Your task to perform on an android device: turn off location history Image 0: 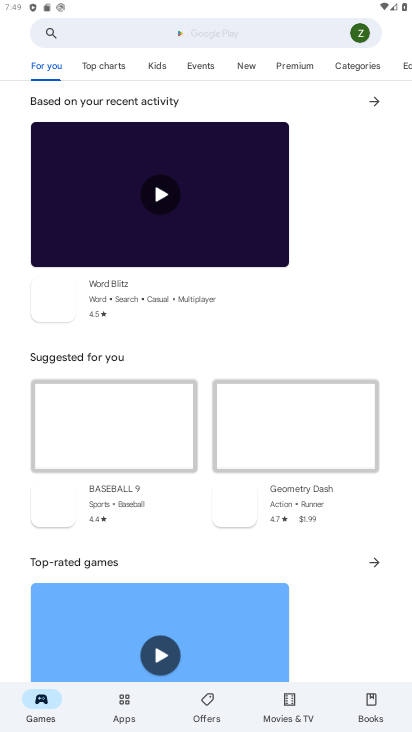
Step 0: press home button
Your task to perform on an android device: turn off location history Image 1: 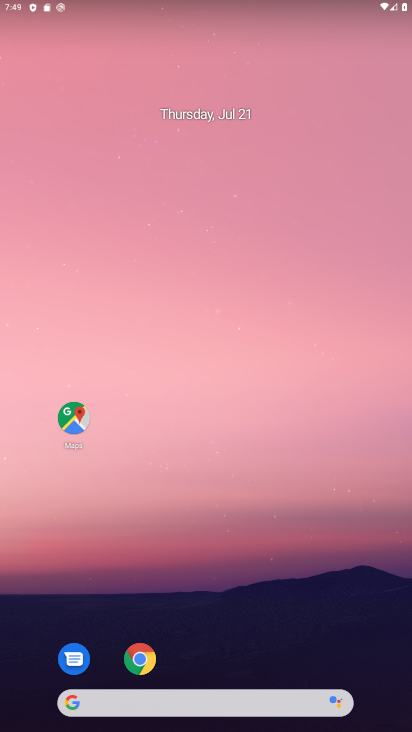
Step 1: click (64, 412)
Your task to perform on an android device: turn off location history Image 2: 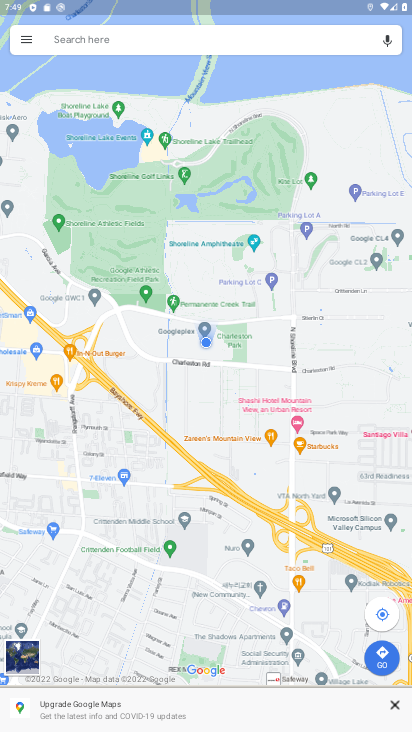
Step 2: click (24, 35)
Your task to perform on an android device: turn off location history Image 3: 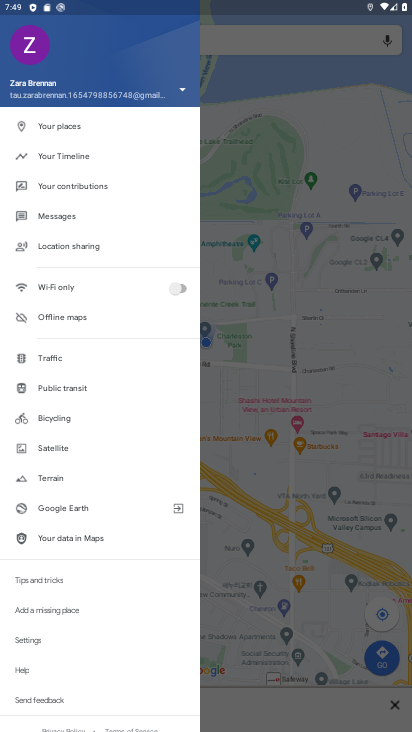
Step 3: click (85, 162)
Your task to perform on an android device: turn off location history Image 4: 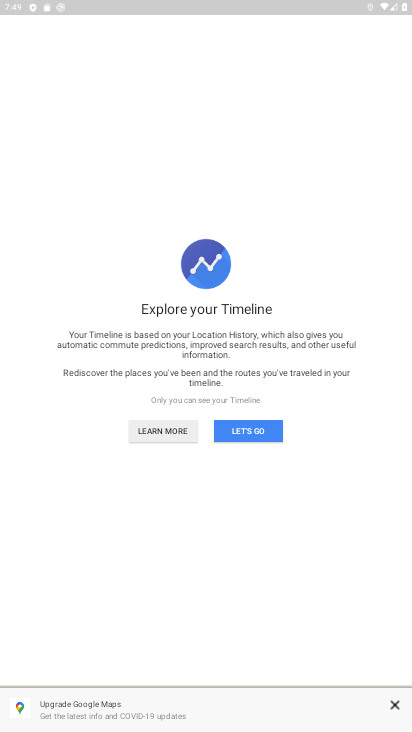
Step 4: click (252, 441)
Your task to perform on an android device: turn off location history Image 5: 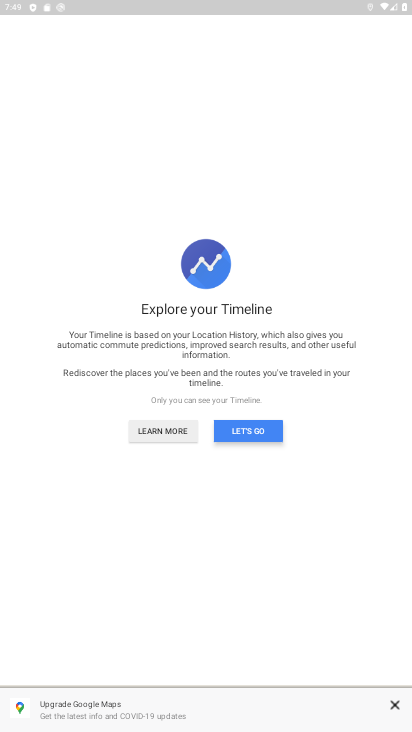
Step 5: click (252, 436)
Your task to perform on an android device: turn off location history Image 6: 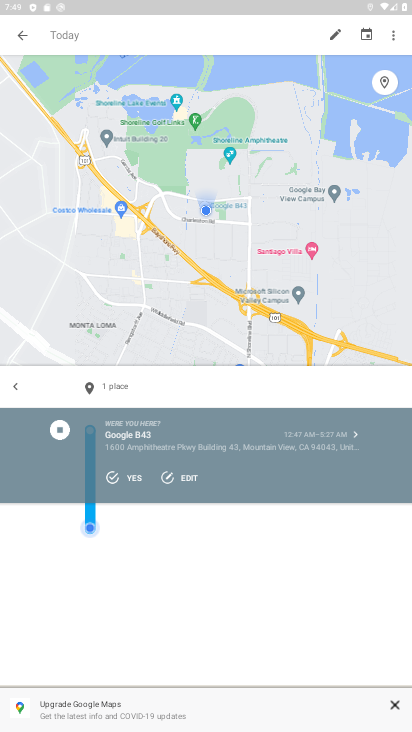
Step 6: click (389, 33)
Your task to perform on an android device: turn off location history Image 7: 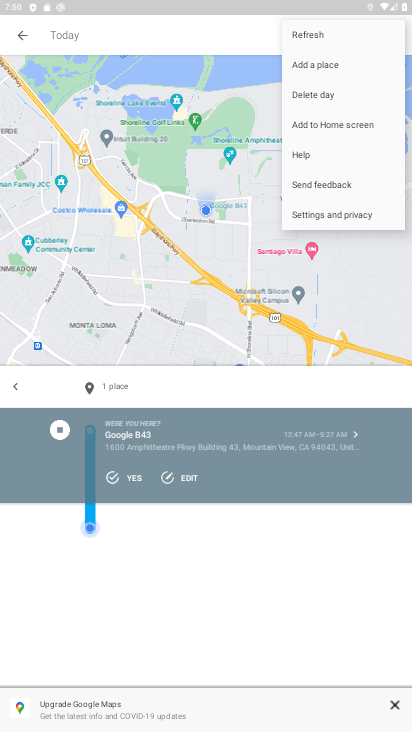
Step 7: click (357, 216)
Your task to perform on an android device: turn off location history Image 8: 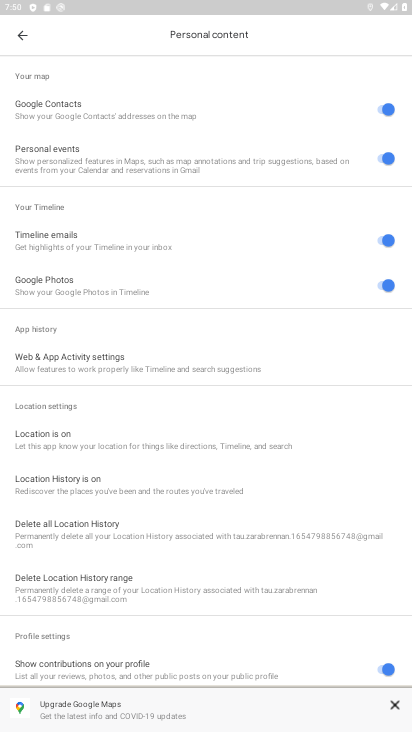
Step 8: click (167, 500)
Your task to perform on an android device: turn off location history Image 9: 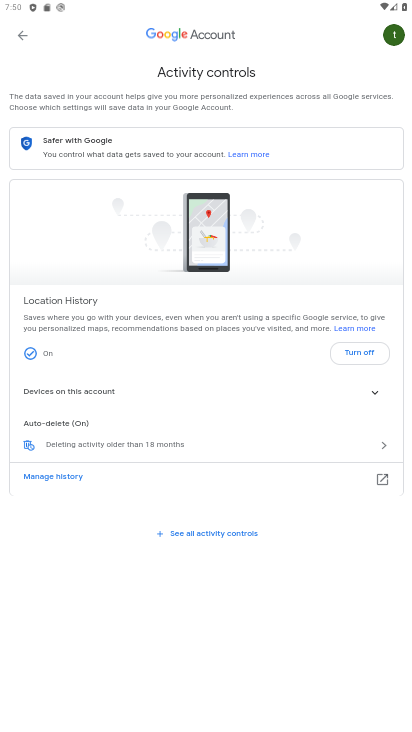
Step 9: click (356, 358)
Your task to perform on an android device: turn off location history Image 10: 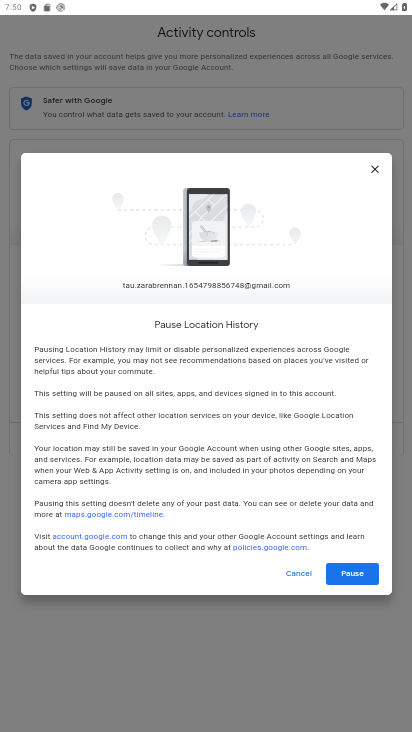
Step 10: click (364, 577)
Your task to perform on an android device: turn off location history Image 11: 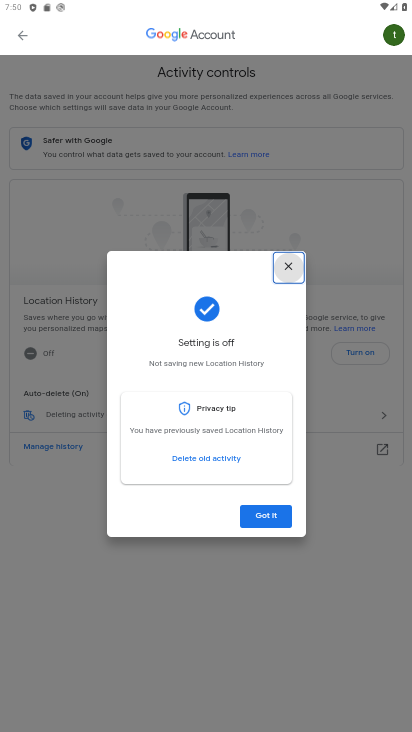
Step 11: click (259, 516)
Your task to perform on an android device: turn off location history Image 12: 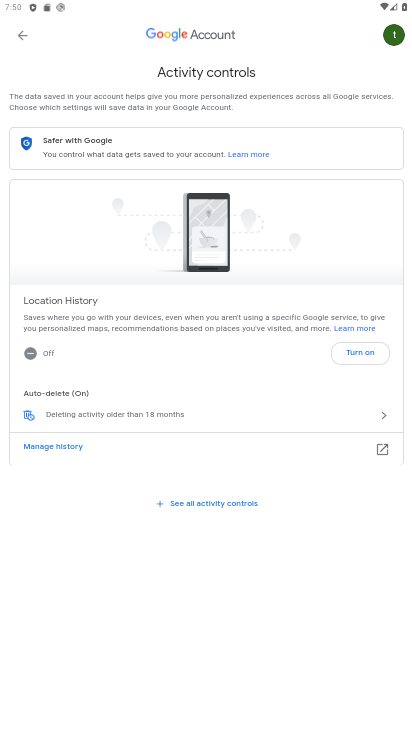
Step 12: task complete